Your task to perform on an android device: change text size in settings app Image 0: 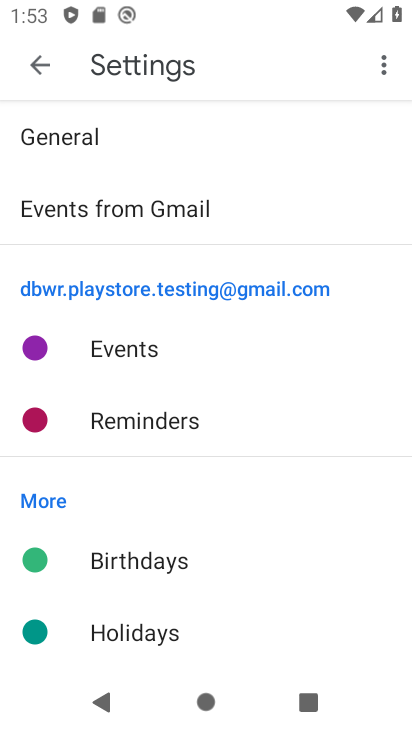
Step 0: press home button
Your task to perform on an android device: change text size in settings app Image 1: 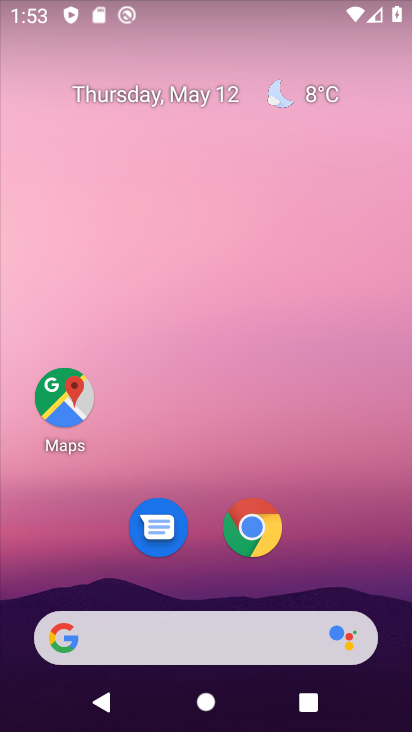
Step 1: drag from (97, 588) to (172, 206)
Your task to perform on an android device: change text size in settings app Image 2: 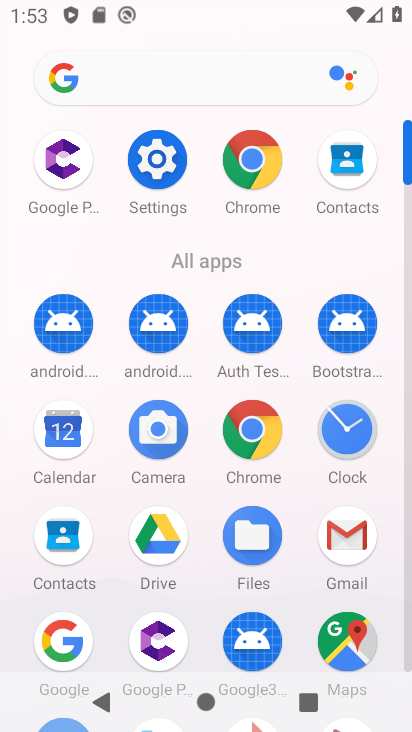
Step 2: drag from (158, 660) to (254, 348)
Your task to perform on an android device: change text size in settings app Image 3: 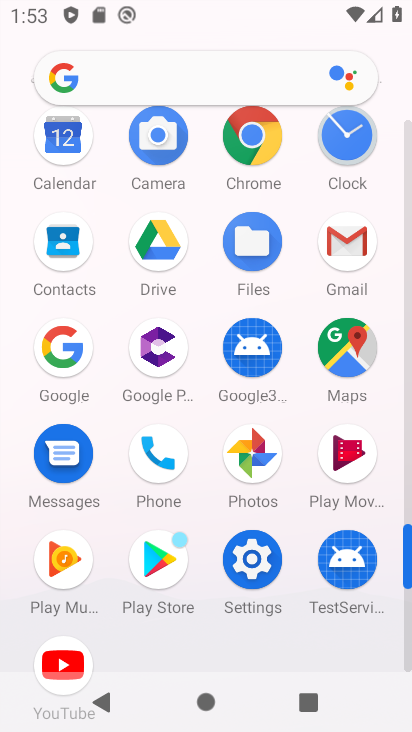
Step 3: click (258, 572)
Your task to perform on an android device: change text size in settings app Image 4: 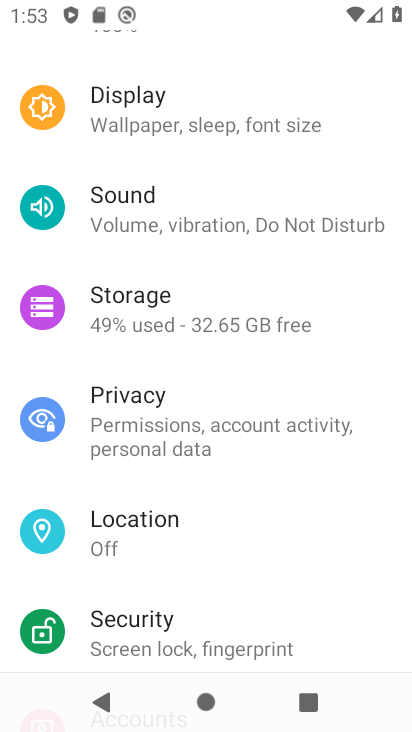
Step 4: drag from (151, 603) to (223, 606)
Your task to perform on an android device: change text size in settings app Image 5: 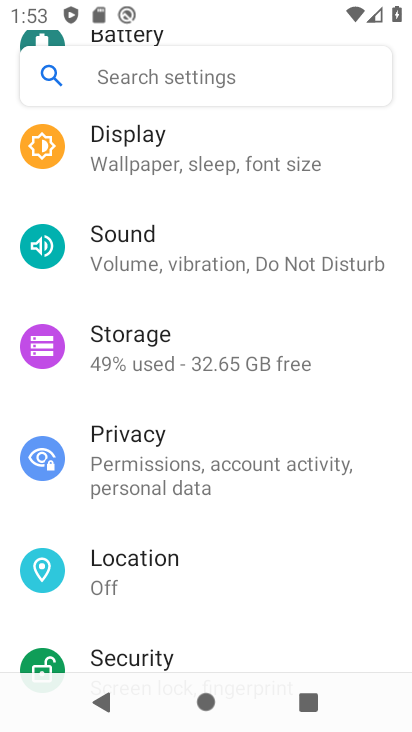
Step 5: click (208, 179)
Your task to perform on an android device: change text size in settings app Image 6: 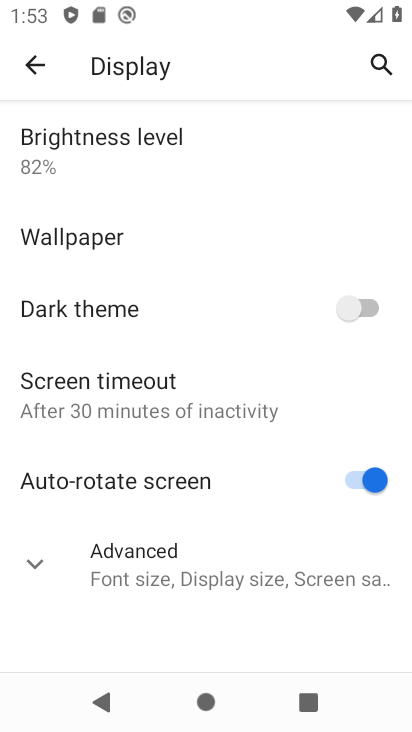
Step 6: click (260, 581)
Your task to perform on an android device: change text size in settings app Image 7: 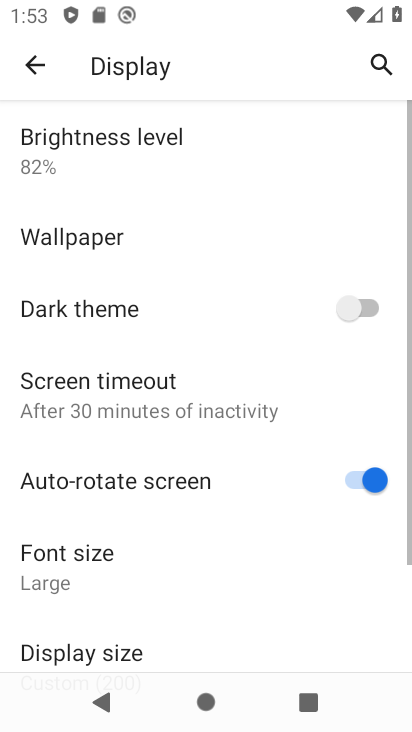
Step 7: drag from (219, 610) to (281, 322)
Your task to perform on an android device: change text size in settings app Image 8: 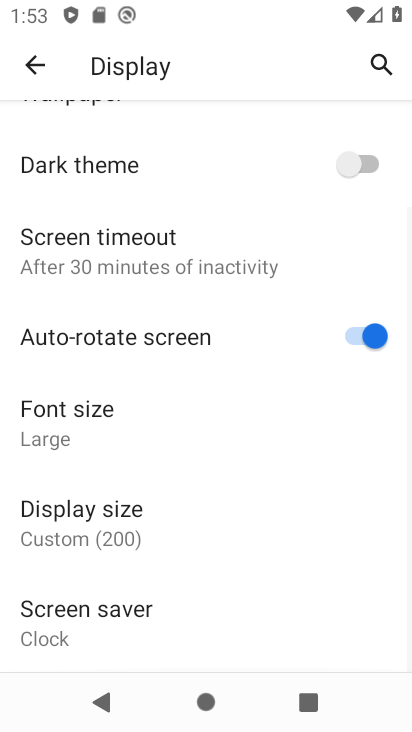
Step 8: click (150, 414)
Your task to perform on an android device: change text size in settings app Image 9: 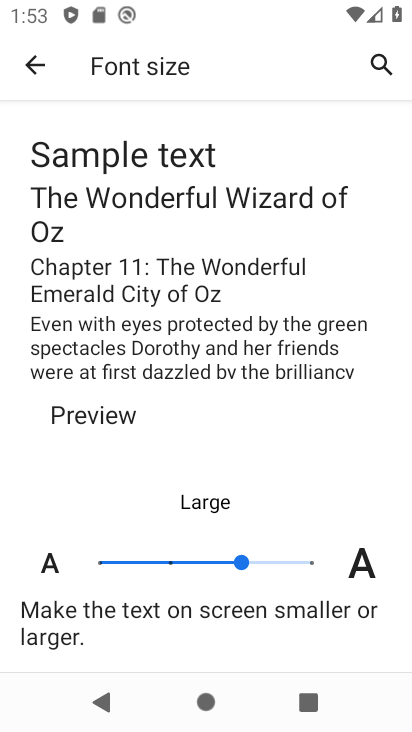
Step 9: click (160, 562)
Your task to perform on an android device: change text size in settings app Image 10: 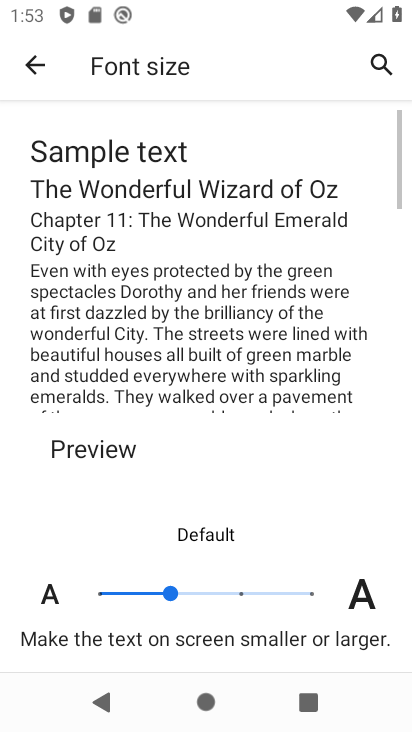
Step 10: task complete